Your task to perform on an android device: Go to Google Image 0: 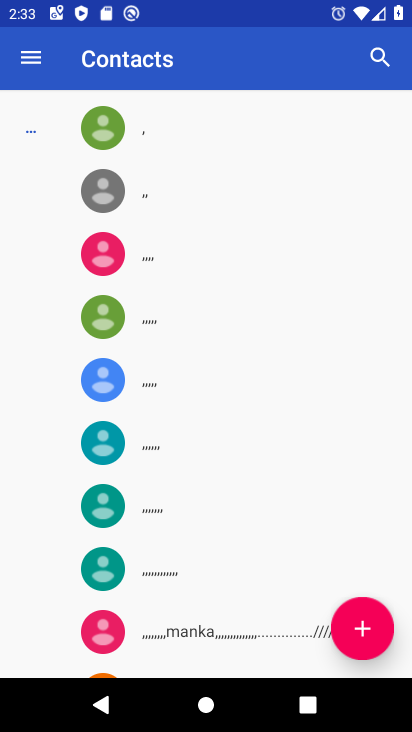
Step 0: press home button
Your task to perform on an android device: Go to Google Image 1: 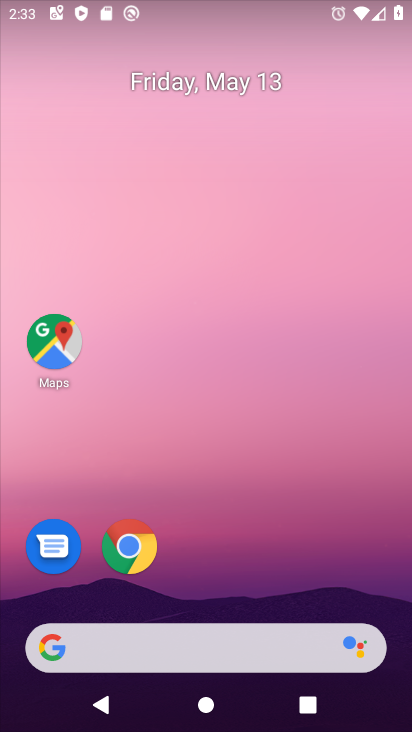
Step 1: drag from (315, 543) to (314, 117)
Your task to perform on an android device: Go to Google Image 2: 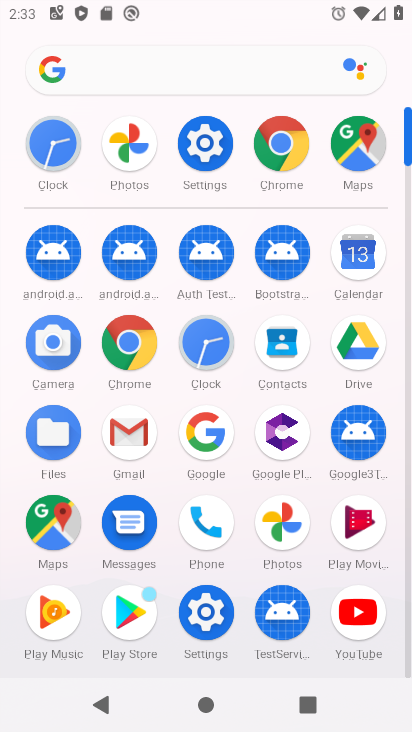
Step 2: click (197, 434)
Your task to perform on an android device: Go to Google Image 3: 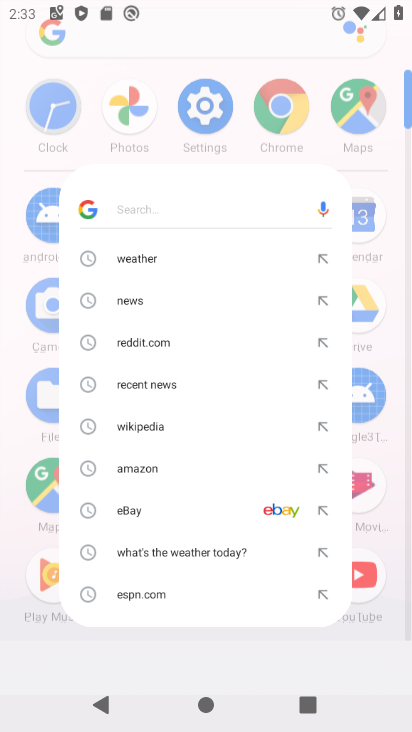
Step 3: click (202, 431)
Your task to perform on an android device: Go to Google Image 4: 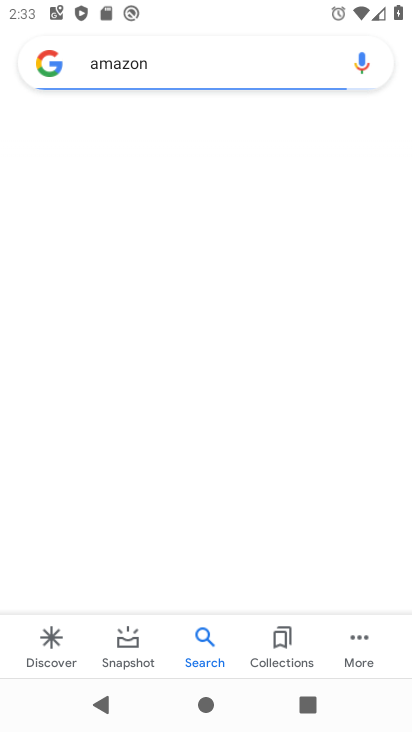
Step 4: task complete